Your task to perform on an android device: Open privacy settings Image 0: 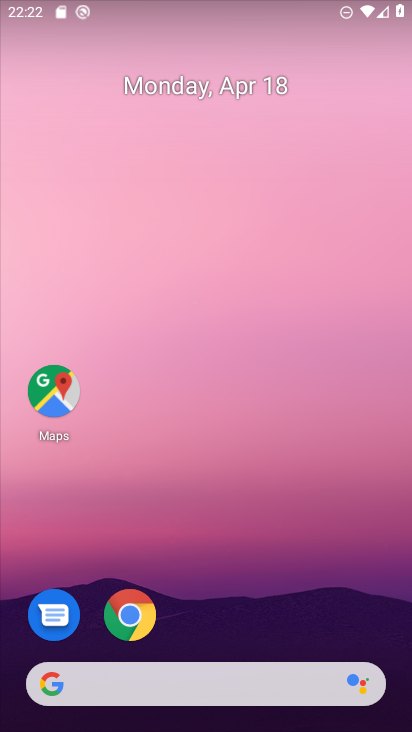
Step 0: click (362, 559)
Your task to perform on an android device: Open privacy settings Image 1: 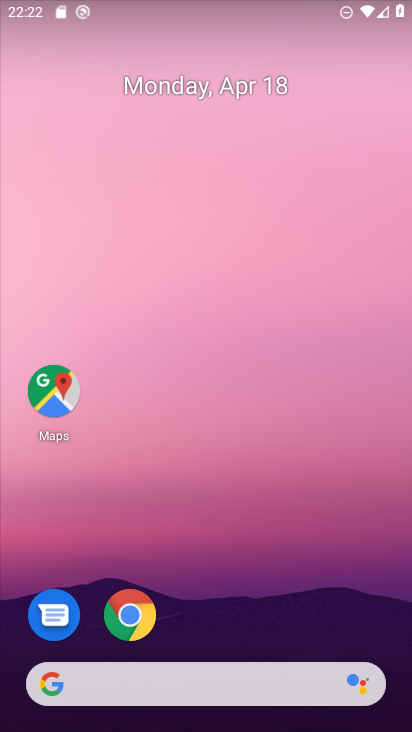
Step 1: click (134, 621)
Your task to perform on an android device: Open privacy settings Image 2: 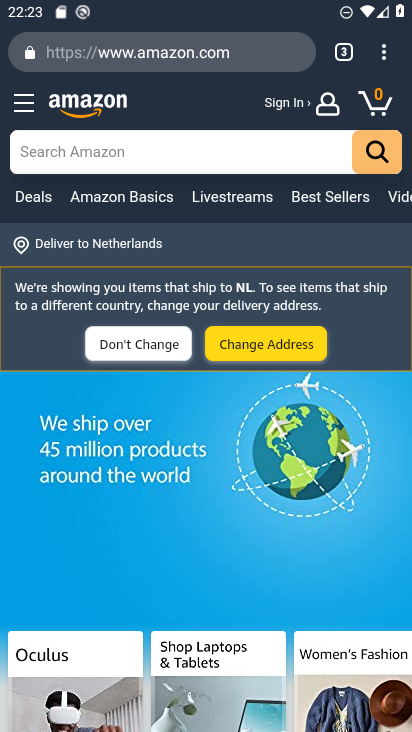
Step 2: click (382, 57)
Your task to perform on an android device: Open privacy settings Image 3: 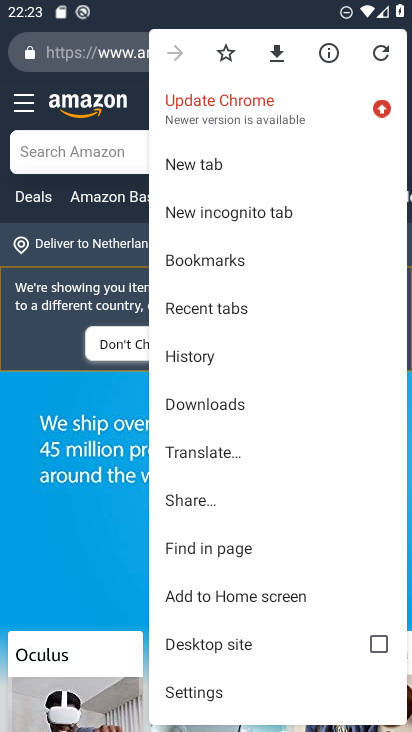
Step 3: click (204, 694)
Your task to perform on an android device: Open privacy settings Image 4: 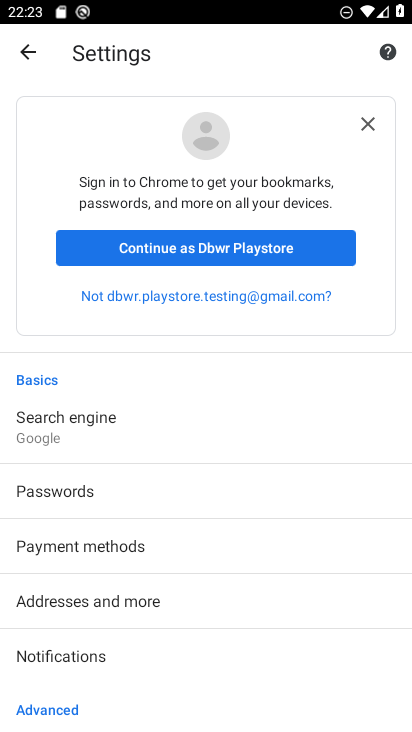
Step 4: drag from (226, 606) to (234, 344)
Your task to perform on an android device: Open privacy settings Image 5: 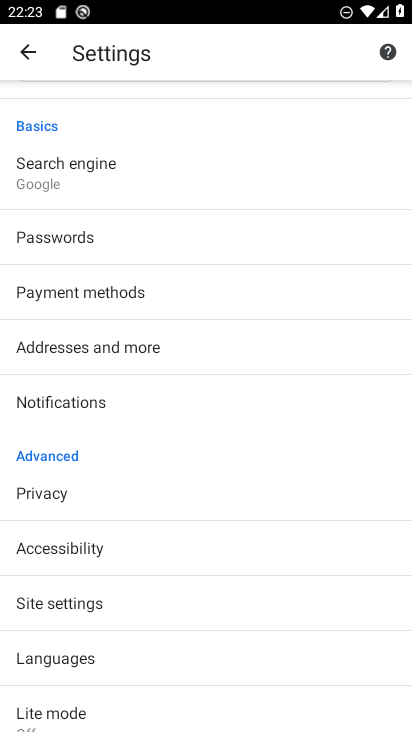
Step 5: click (58, 495)
Your task to perform on an android device: Open privacy settings Image 6: 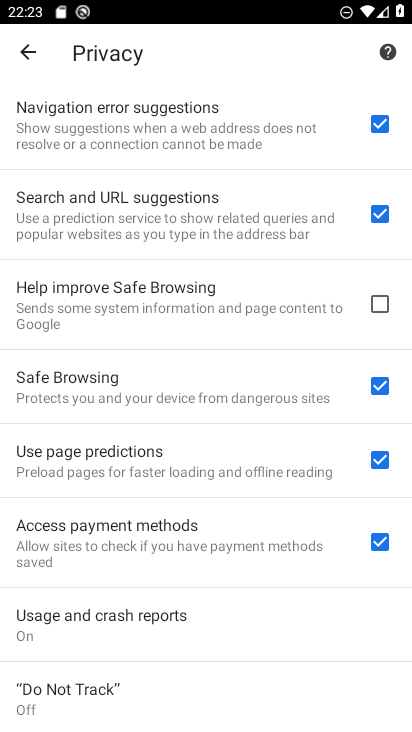
Step 6: task complete